Your task to perform on an android device: open the mobile data screen to see how much data has been used Image 0: 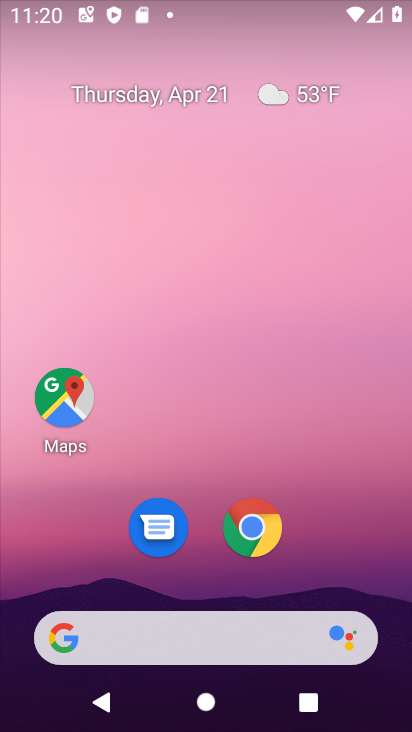
Step 0: drag from (358, 566) to (359, 137)
Your task to perform on an android device: open the mobile data screen to see how much data has been used Image 1: 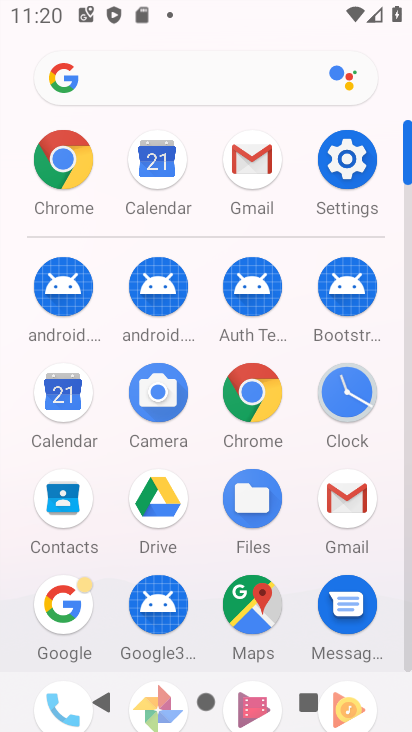
Step 1: click (346, 162)
Your task to perform on an android device: open the mobile data screen to see how much data has been used Image 2: 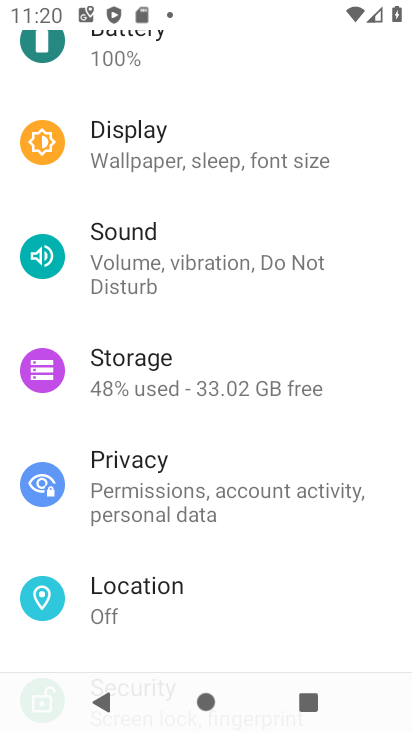
Step 2: drag from (361, 568) to (360, 425)
Your task to perform on an android device: open the mobile data screen to see how much data has been used Image 3: 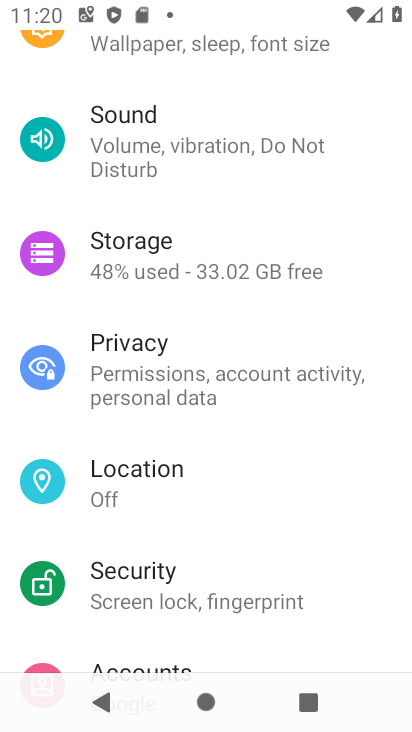
Step 3: drag from (365, 623) to (370, 456)
Your task to perform on an android device: open the mobile data screen to see how much data has been used Image 4: 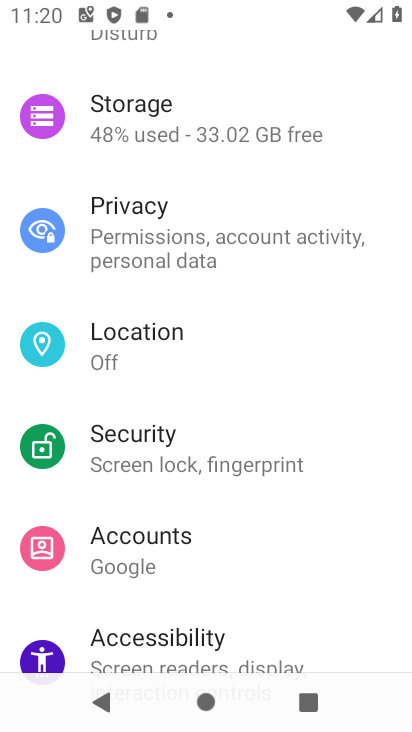
Step 4: drag from (351, 555) to (358, 415)
Your task to perform on an android device: open the mobile data screen to see how much data has been used Image 5: 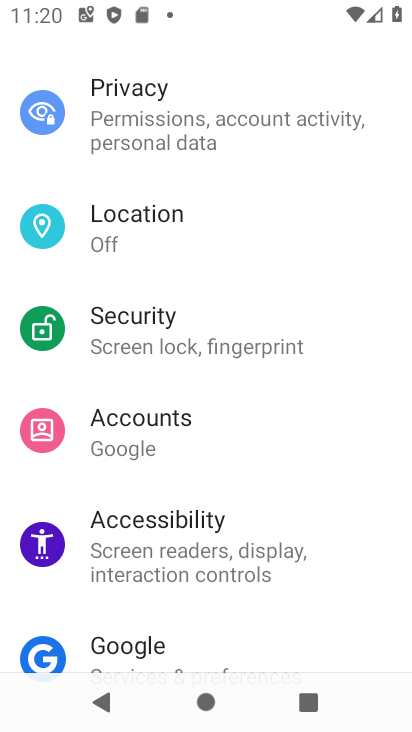
Step 5: drag from (380, 571) to (380, 407)
Your task to perform on an android device: open the mobile data screen to see how much data has been used Image 6: 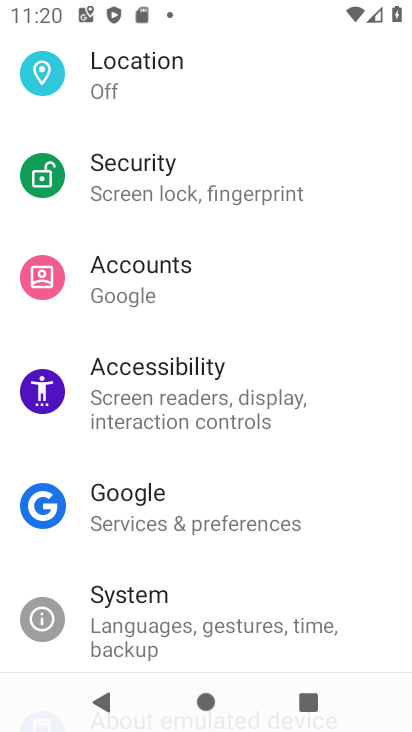
Step 6: drag from (362, 258) to (357, 385)
Your task to perform on an android device: open the mobile data screen to see how much data has been used Image 7: 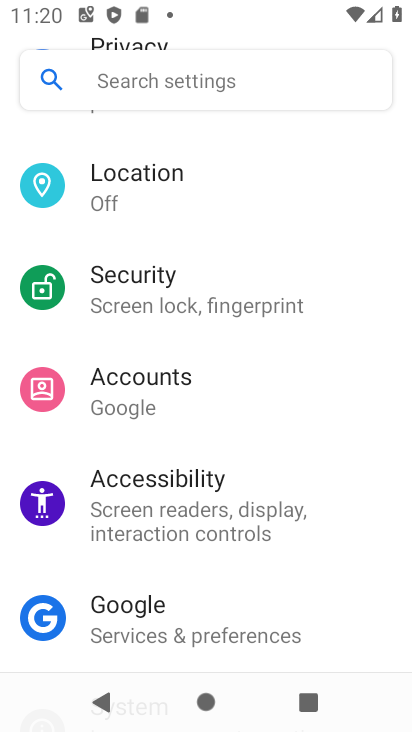
Step 7: drag from (351, 261) to (351, 386)
Your task to perform on an android device: open the mobile data screen to see how much data has been used Image 8: 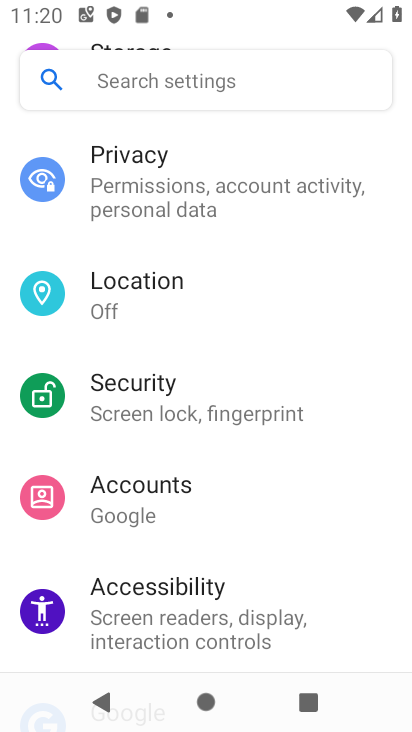
Step 8: drag from (357, 271) to (358, 391)
Your task to perform on an android device: open the mobile data screen to see how much data has been used Image 9: 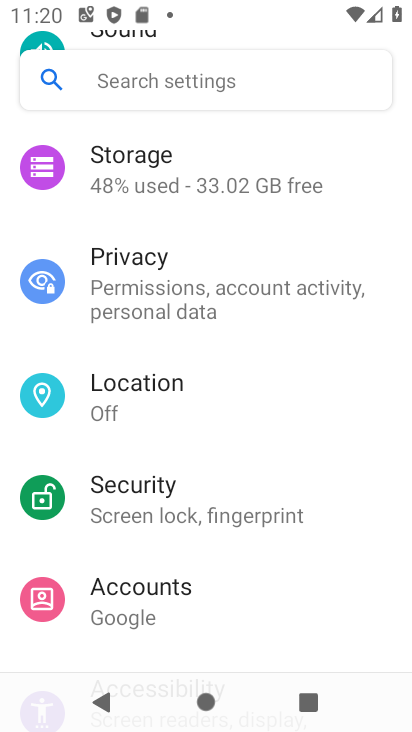
Step 9: drag from (373, 232) to (367, 379)
Your task to perform on an android device: open the mobile data screen to see how much data has been used Image 10: 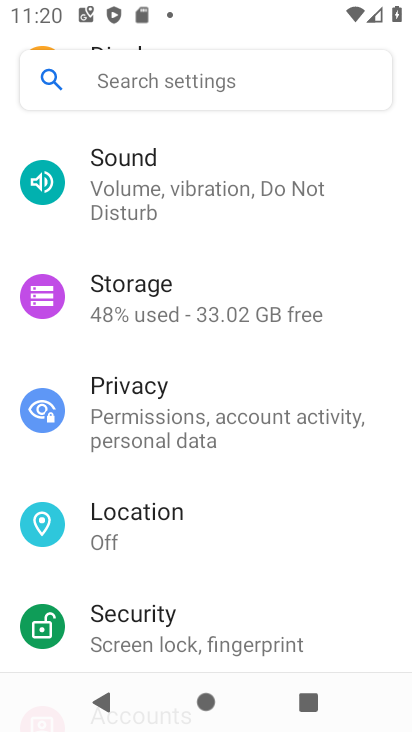
Step 10: drag from (372, 211) to (374, 340)
Your task to perform on an android device: open the mobile data screen to see how much data has been used Image 11: 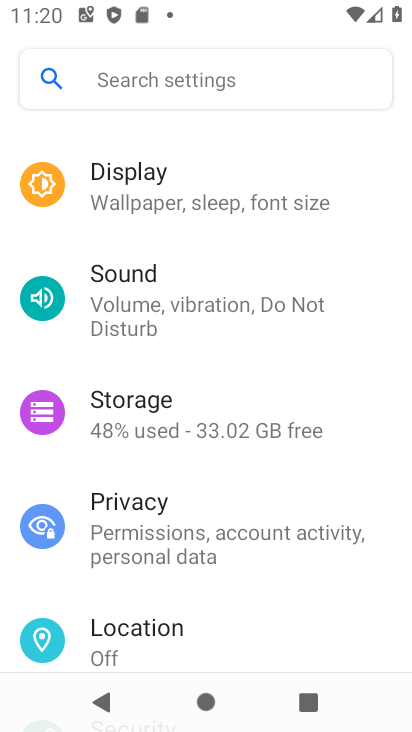
Step 11: drag from (361, 223) to (357, 367)
Your task to perform on an android device: open the mobile data screen to see how much data has been used Image 12: 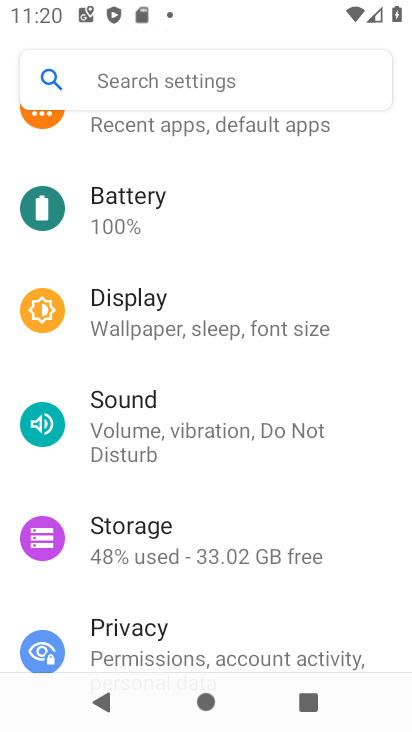
Step 12: drag from (360, 207) to (363, 357)
Your task to perform on an android device: open the mobile data screen to see how much data has been used Image 13: 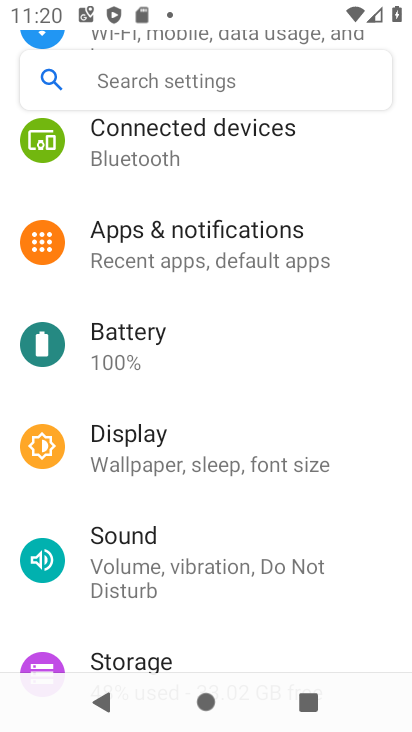
Step 13: drag from (361, 190) to (354, 349)
Your task to perform on an android device: open the mobile data screen to see how much data has been used Image 14: 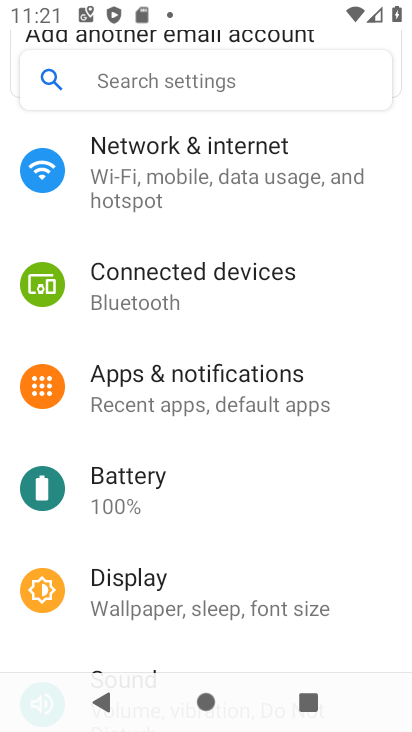
Step 14: drag from (368, 232) to (368, 376)
Your task to perform on an android device: open the mobile data screen to see how much data has been used Image 15: 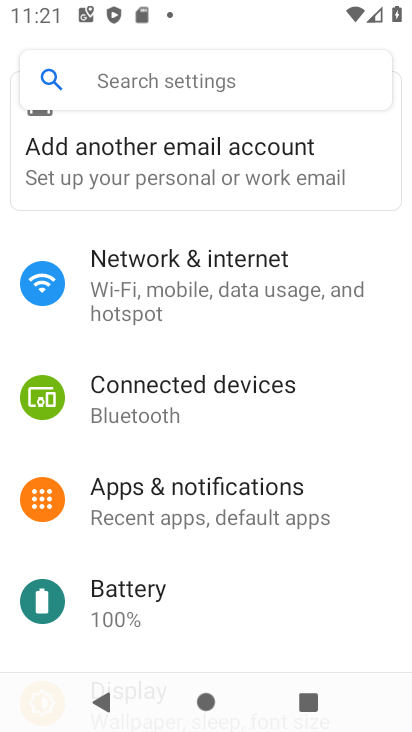
Step 15: click (280, 293)
Your task to perform on an android device: open the mobile data screen to see how much data has been used Image 16: 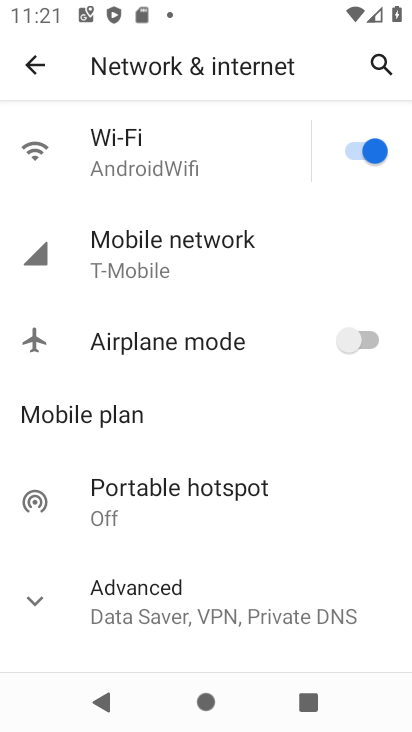
Step 16: click (195, 242)
Your task to perform on an android device: open the mobile data screen to see how much data has been used Image 17: 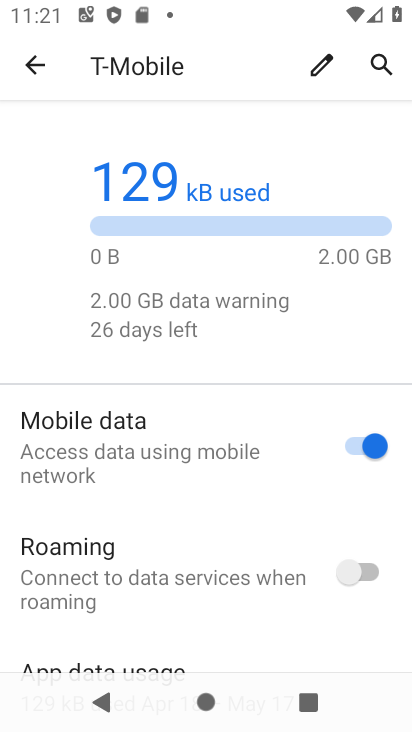
Step 17: drag from (234, 503) to (245, 315)
Your task to perform on an android device: open the mobile data screen to see how much data has been used Image 18: 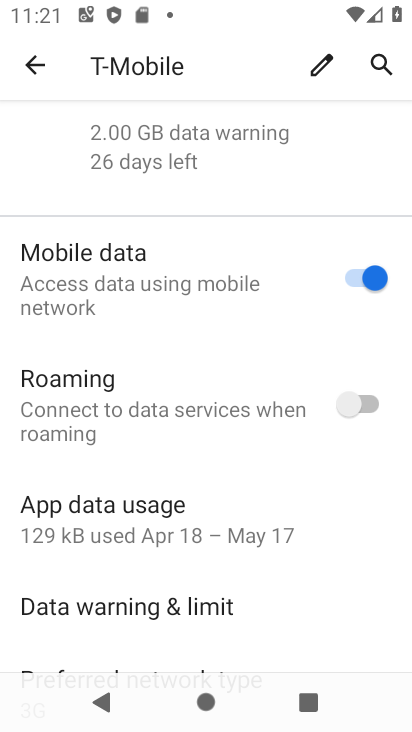
Step 18: click (204, 510)
Your task to perform on an android device: open the mobile data screen to see how much data has been used Image 19: 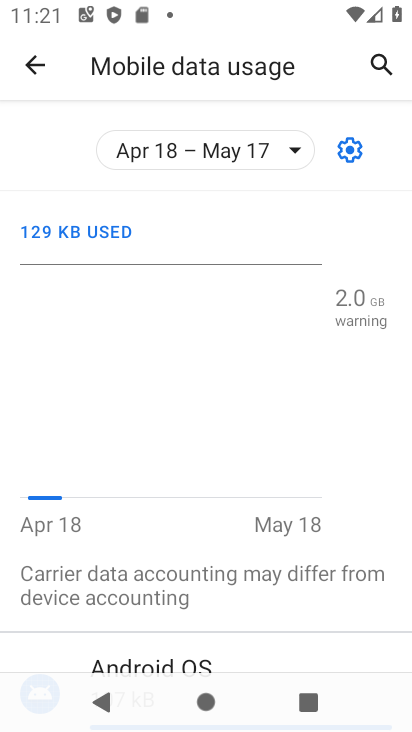
Step 19: task complete